Your task to perform on an android device: Show me my notifications Image 0: 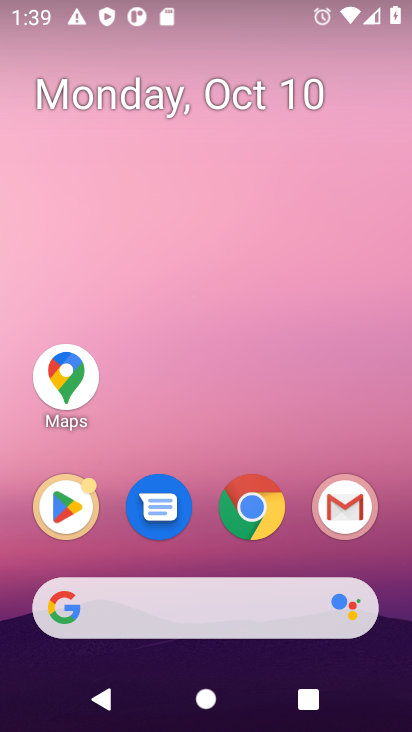
Step 0: press home button
Your task to perform on an android device: Show me my notifications Image 1: 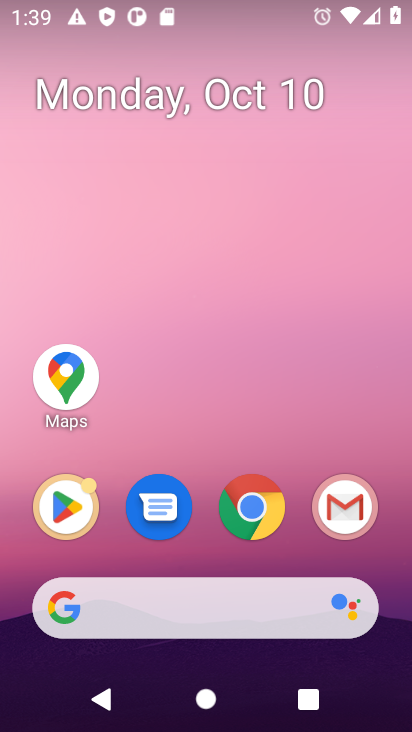
Step 1: drag from (394, 567) to (403, 311)
Your task to perform on an android device: Show me my notifications Image 2: 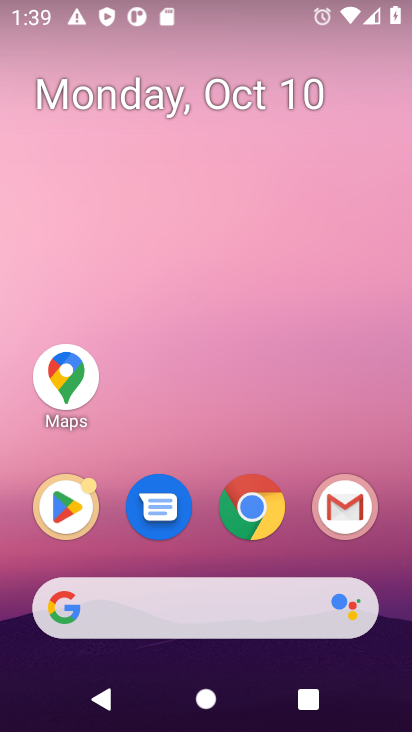
Step 2: drag from (389, 561) to (399, 216)
Your task to perform on an android device: Show me my notifications Image 3: 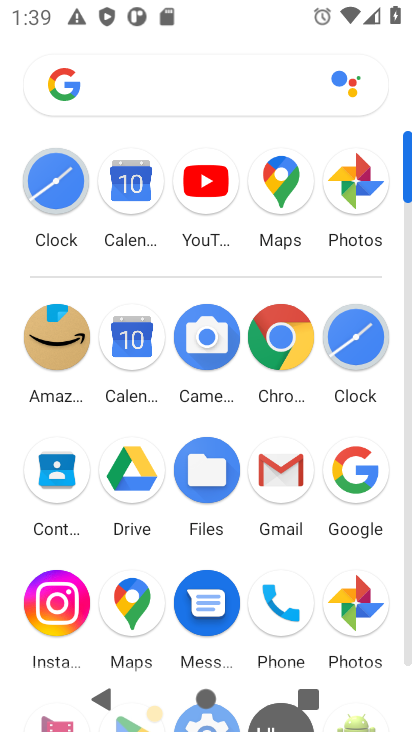
Step 3: drag from (393, 662) to (387, 377)
Your task to perform on an android device: Show me my notifications Image 4: 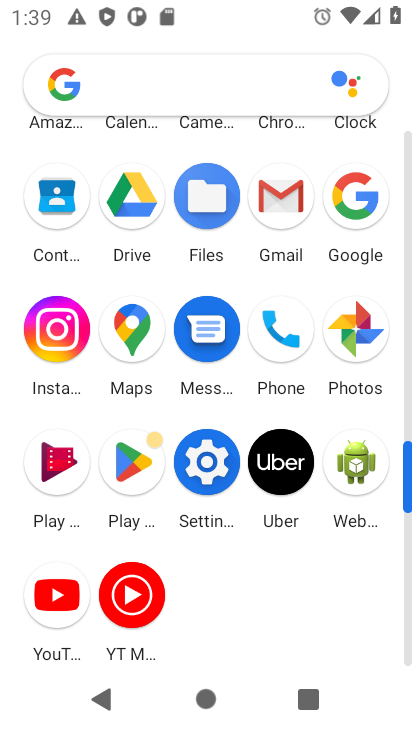
Step 4: click (186, 484)
Your task to perform on an android device: Show me my notifications Image 5: 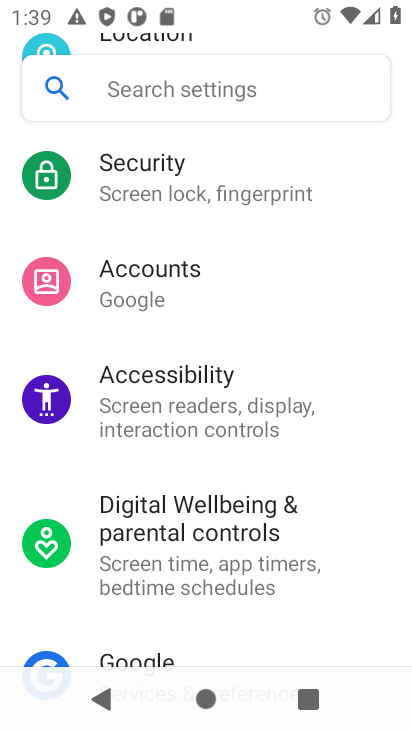
Step 5: drag from (355, 207) to (349, 322)
Your task to perform on an android device: Show me my notifications Image 6: 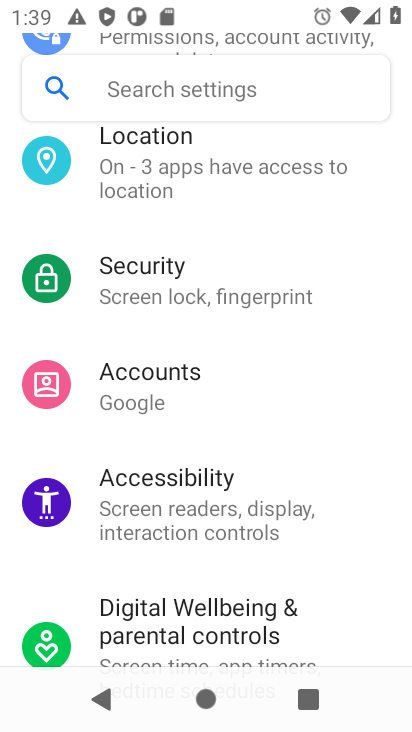
Step 6: drag from (342, 146) to (341, 280)
Your task to perform on an android device: Show me my notifications Image 7: 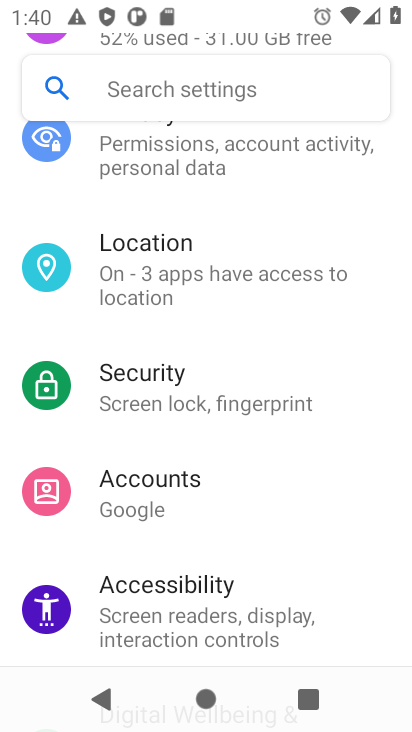
Step 7: drag from (355, 148) to (353, 309)
Your task to perform on an android device: Show me my notifications Image 8: 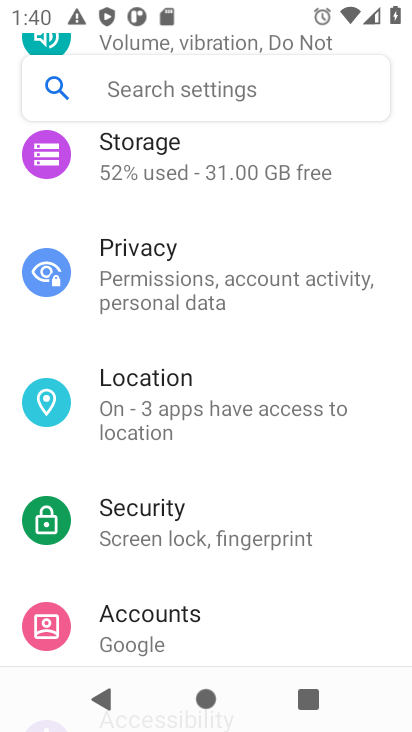
Step 8: drag from (356, 124) to (338, 296)
Your task to perform on an android device: Show me my notifications Image 9: 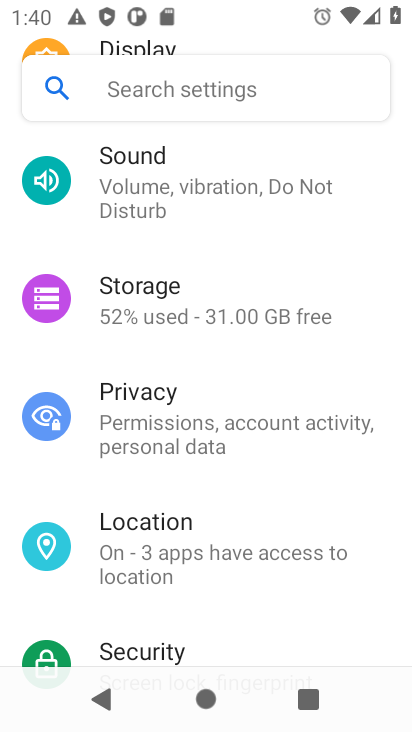
Step 9: drag from (339, 159) to (324, 281)
Your task to perform on an android device: Show me my notifications Image 10: 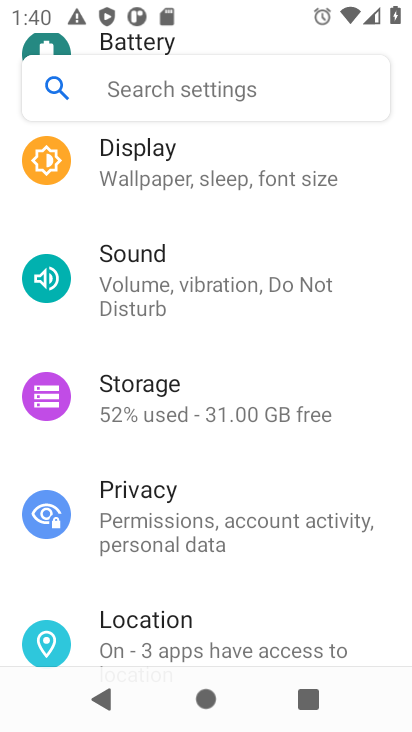
Step 10: drag from (383, 169) to (355, 352)
Your task to perform on an android device: Show me my notifications Image 11: 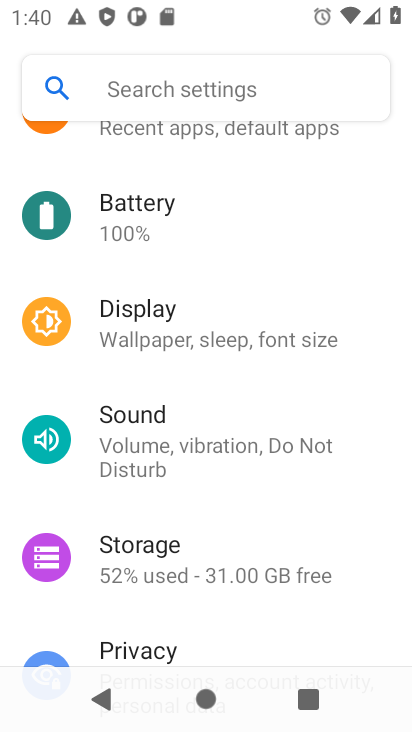
Step 11: drag from (378, 116) to (374, 327)
Your task to perform on an android device: Show me my notifications Image 12: 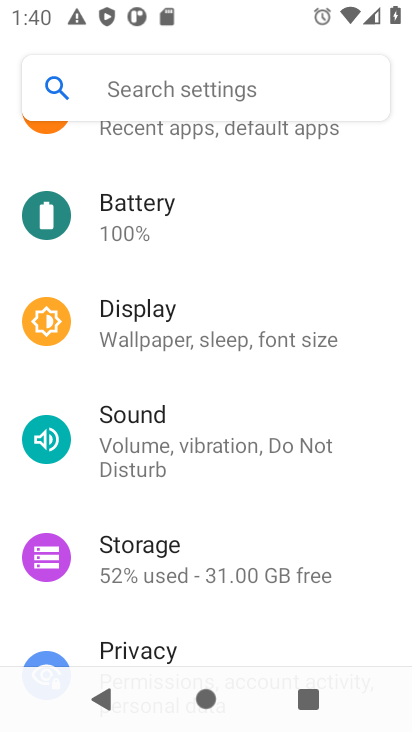
Step 12: drag from (379, 131) to (356, 337)
Your task to perform on an android device: Show me my notifications Image 13: 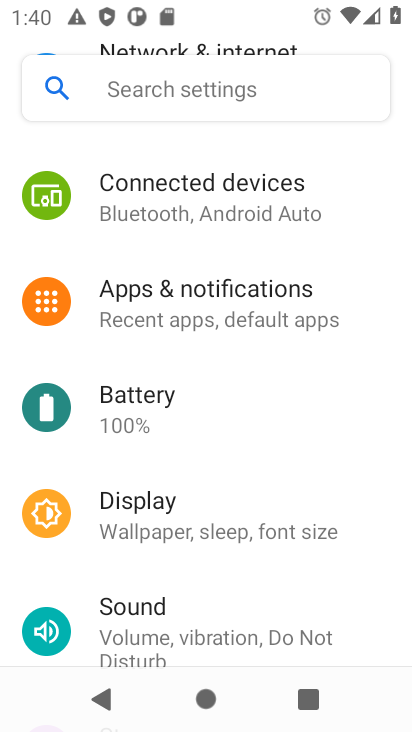
Step 13: click (262, 301)
Your task to perform on an android device: Show me my notifications Image 14: 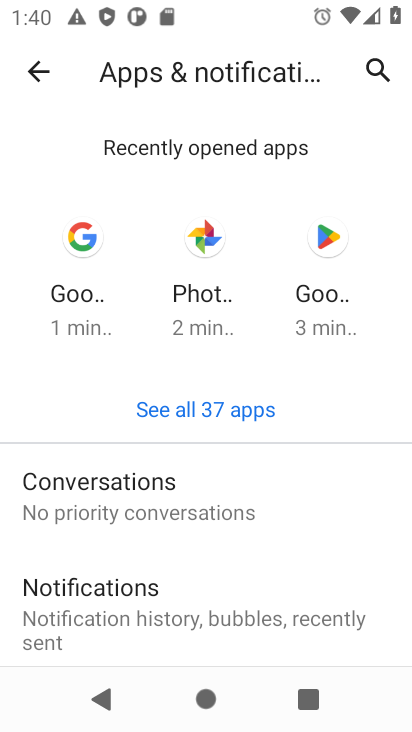
Step 14: drag from (204, 538) to (236, 376)
Your task to perform on an android device: Show me my notifications Image 15: 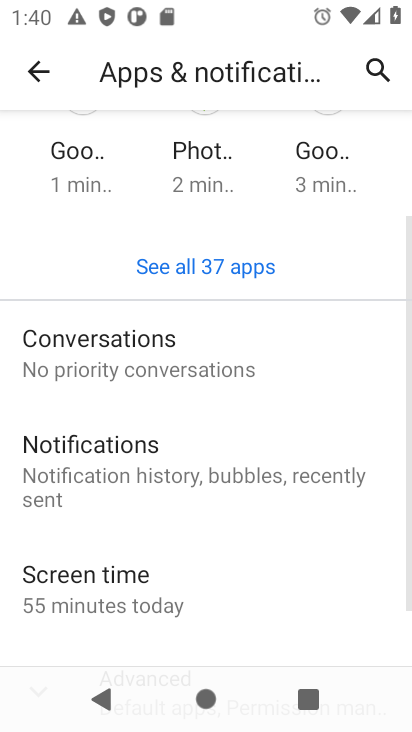
Step 15: click (192, 487)
Your task to perform on an android device: Show me my notifications Image 16: 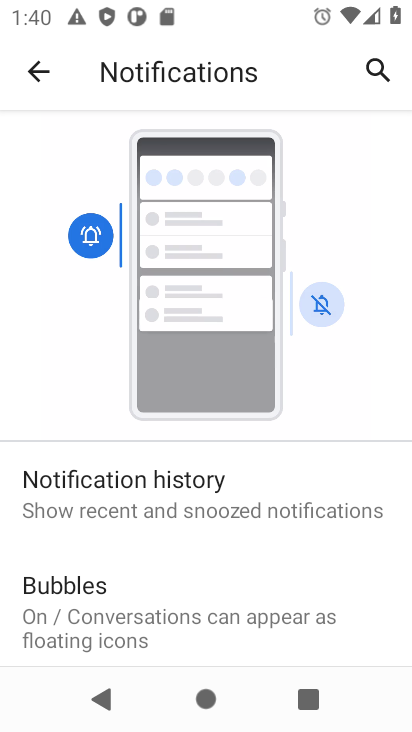
Step 16: task complete